Your task to perform on an android device: Go to CNN.com Image 0: 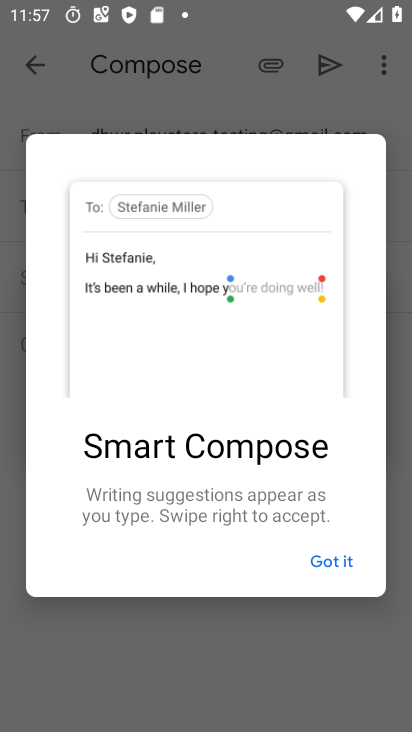
Step 0: press home button
Your task to perform on an android device: Go to CNN.com Image 1: 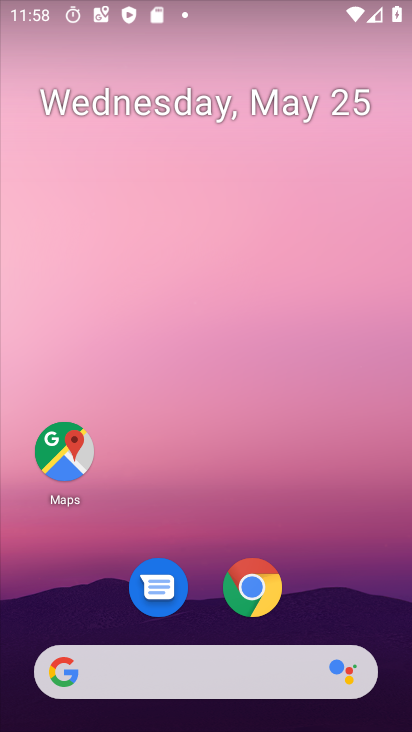
Step 1: drag from (267, 689) to (275, 198)
Your task to perform on an android device: Go to CNN.com Image 2: 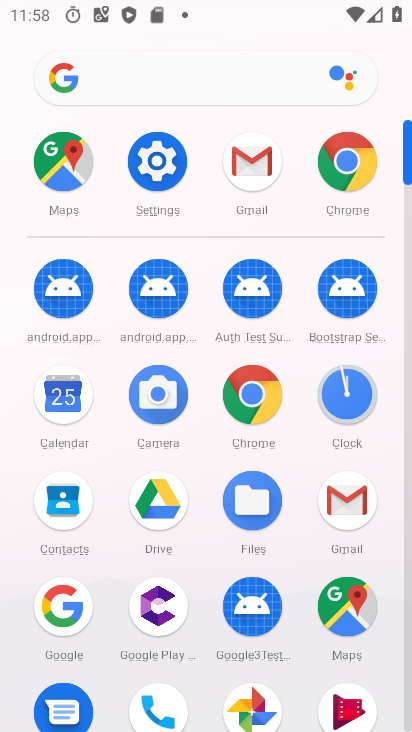
Step 2: click (327, 158)
Your task to perform on an android device: Go to CNN.com Image 3: 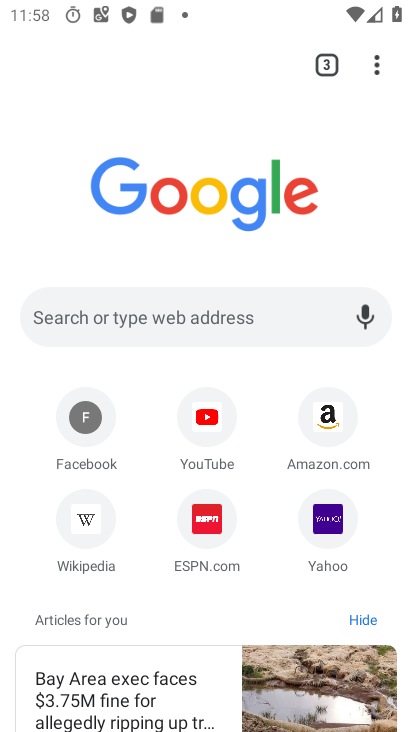
Step 3: click (132, 323)
Your task to perform on an android device: Go to CNN.com Image 4: 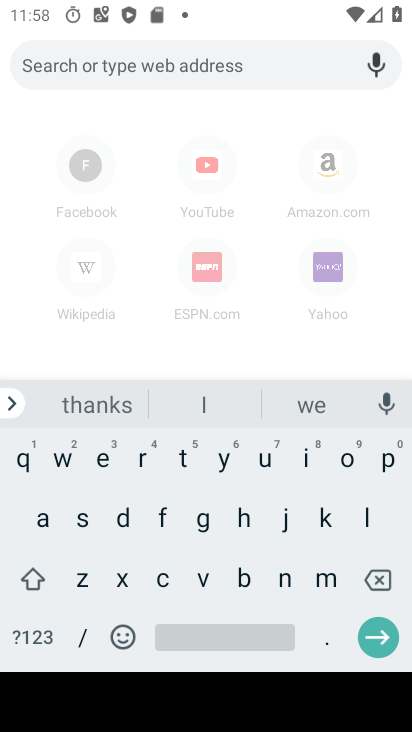
Step 4: click (154, 582)
Your task to perform on an android device: Go to CNN.com Image 5: 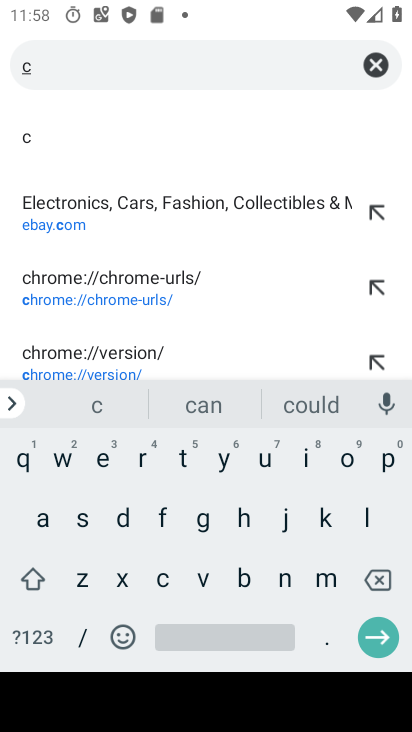
Step 5: click (281, 583)
Your task to perform on an android device: Go to CNN.com Image 6: 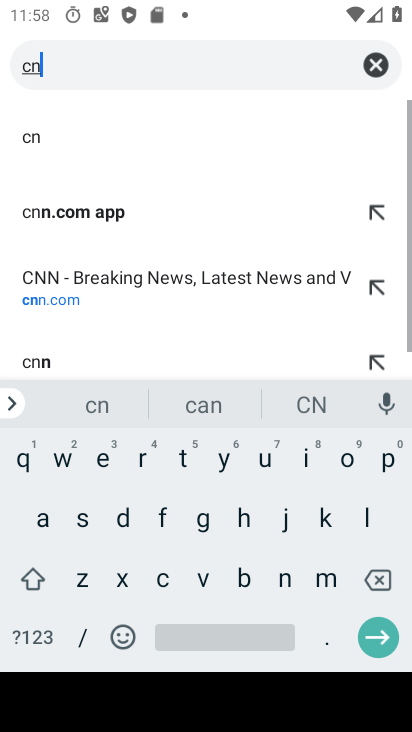
Step 6: click (281, 582)
Your task to perform on an android device: Go to CNN.com Image 7: 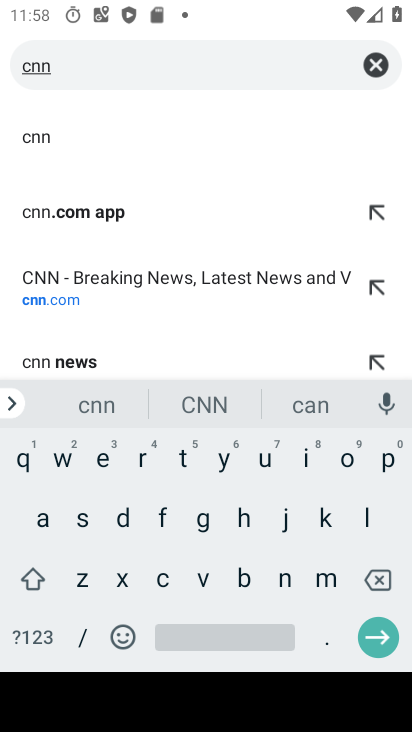
Step 7: click (323, 642)
Your task to perform on an android device: Go to CNN.com Image 8: 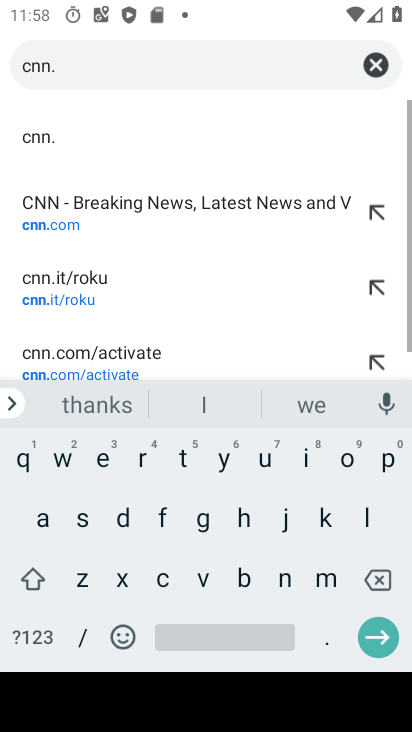
Step 8: click (168, 582)
Your task to perform on an android device: Go to CNN.com Image 9: 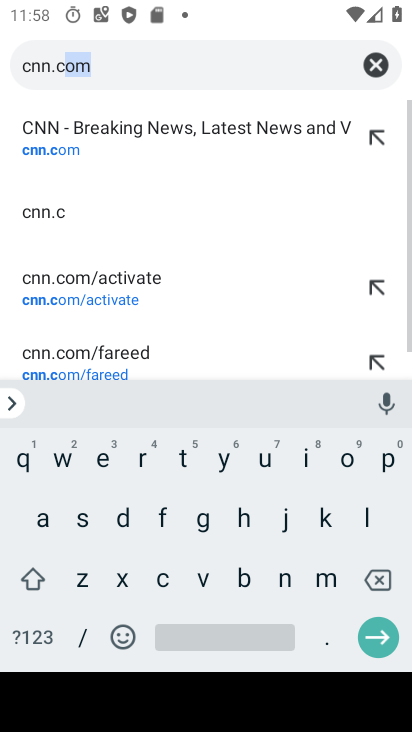
Step 9: click (115, 61)
Your task to perform on an android device: Go to CNN.com Image 10: 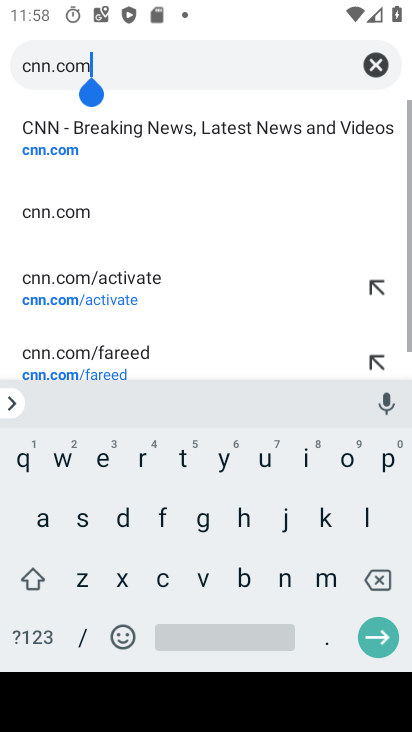
Step 10: click (390, 630)
Your task to perform on an android device: Go to CNN.com Image 11: 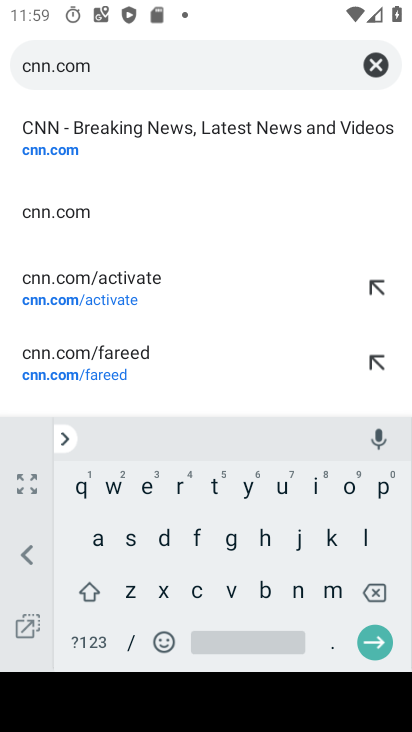
Step 11: click (371, 637)
Your task to perform on an android device: Go to CNN.com Image 12: 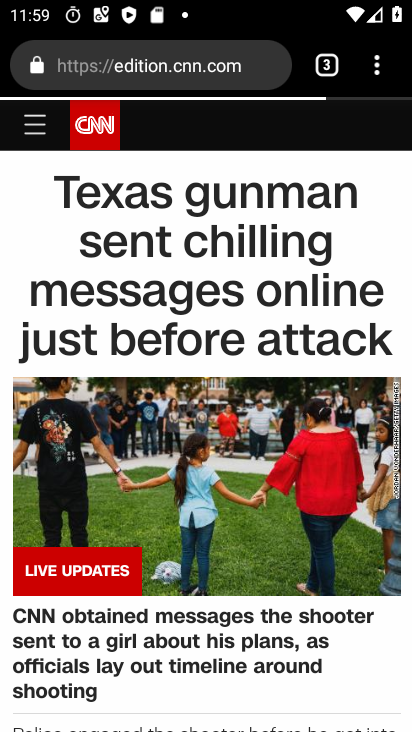
Step 12: task complete